Your task to perform on an android device: toggle data saver in the chrome app Image 0: 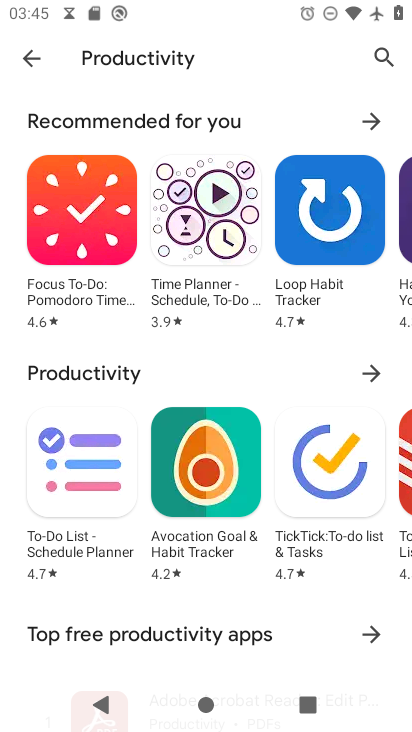
Step 0: press home button
Your task to perform on an android device: toggle data saver in the chrome app Image 1: 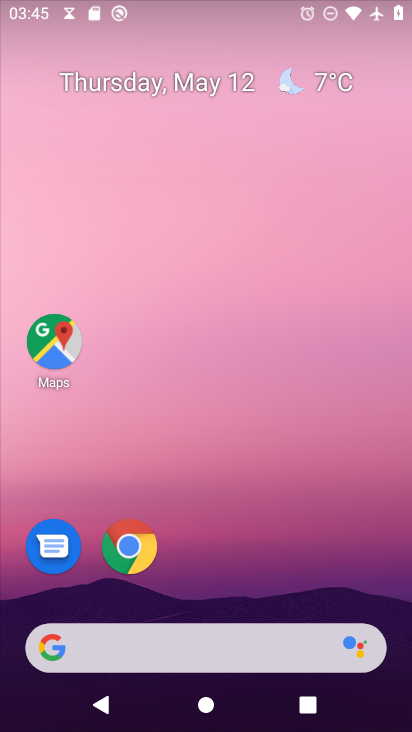
Step 1: drag from (229, 654) to (353, 144)
Your task to perform on an android device: toggle data saver in the chrome app Image 2: 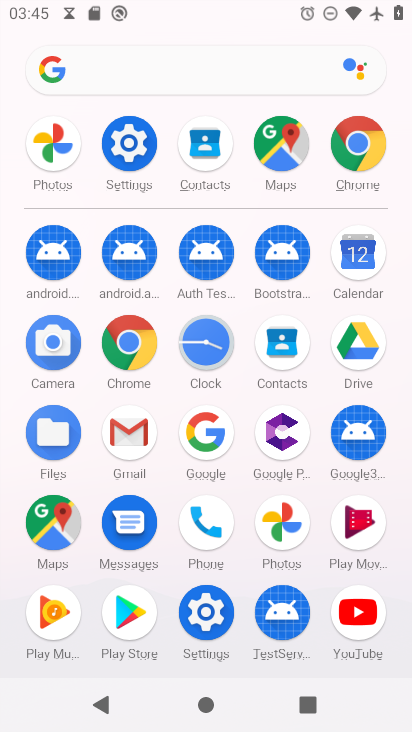
Step 2: click (372, 145)
Your task to perform on an android device: toggle data saver in the chrome app Image 3: 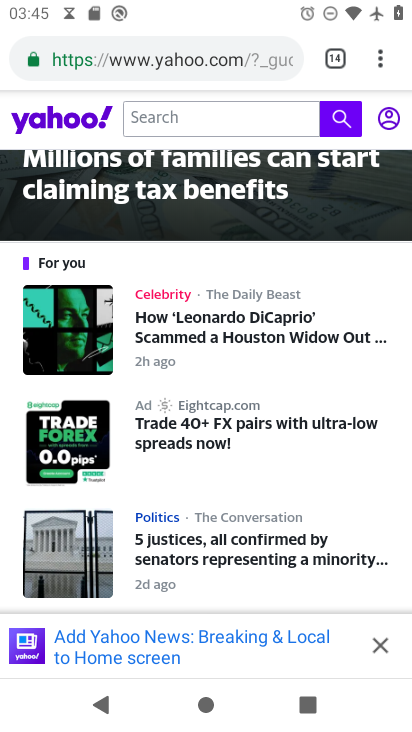
Step 3: drag from (377, 52) to (250, 579)
Your task to perform on an android device: toggle data saver in the chrome app Image 4: 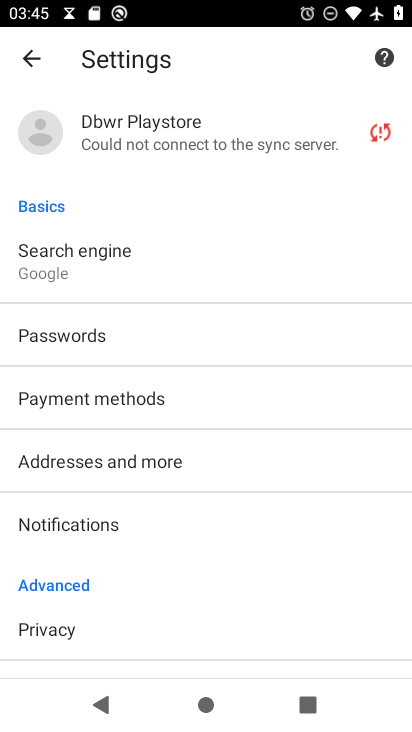
Step 4: drag from (139, 631) to (308, 235)
Your task to perform on an android device: toggle data saver in the chrome app Image 5: 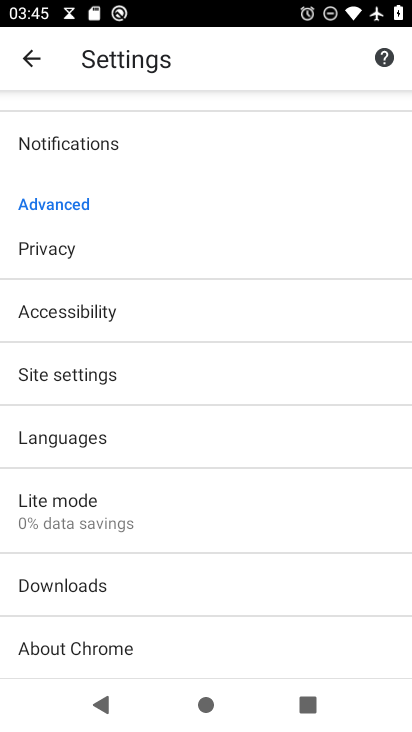
Step 5: click (124, 507)
Your task to perform on an android device: toggle data saver in the chrome app Image 6: 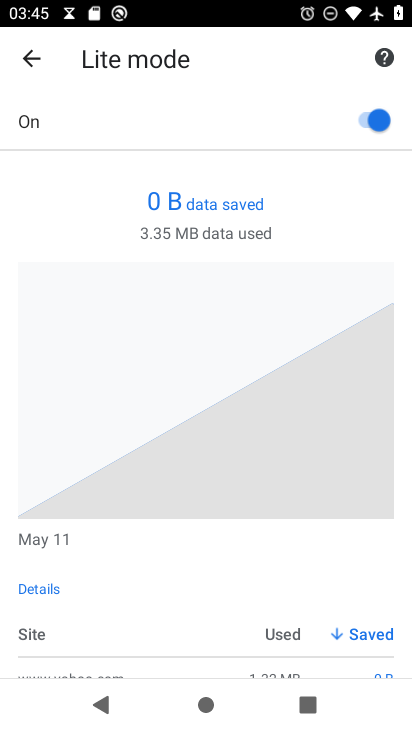
Step 6: click (361, 122)
Your task to perform on an android device: toggle data saver in the chrome app Image 7: 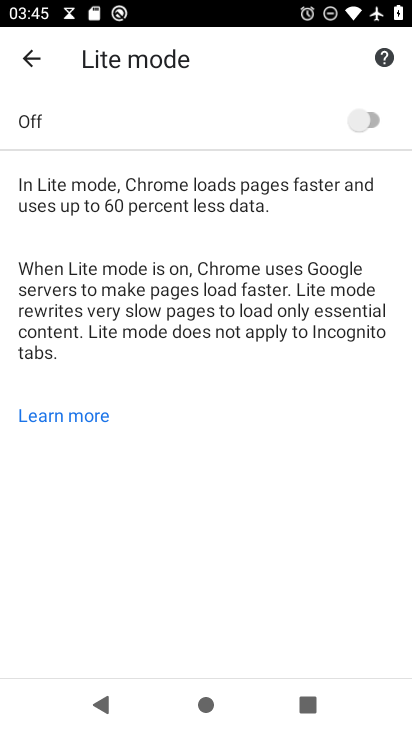
Step 7: task complete